Your task to perform on an android device: Open Google Image 0: 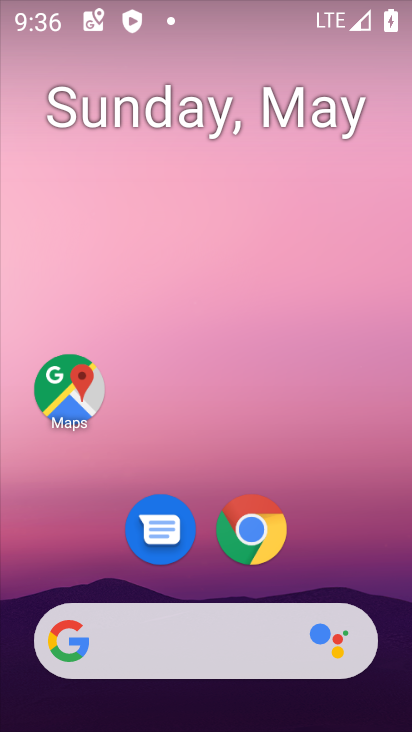
Step 0: click (239, 642)
Your task to perform on an android device: Open Google Image 1: 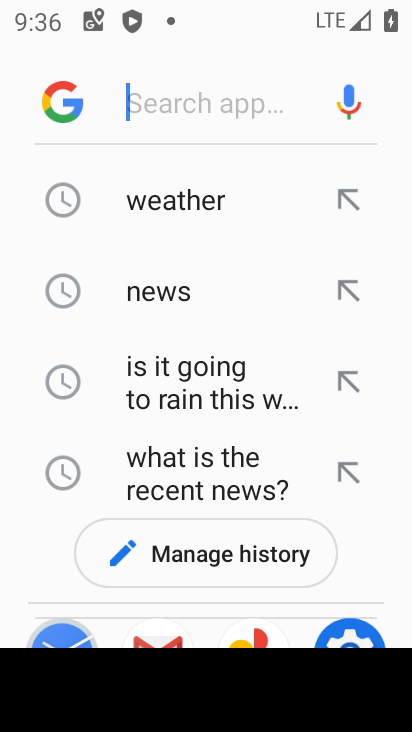
Step 1: type "google.com"
Your task to perform on an android device: Open Google Image 2: 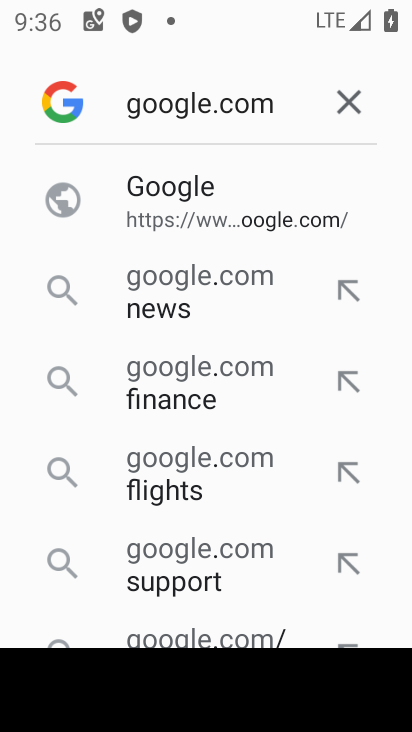
Step 2: click (288, 228)
Your task to perform on an android device: Open Google Image 3: 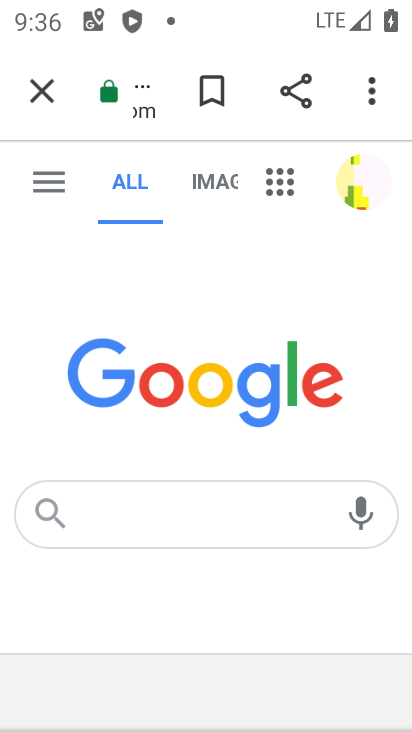
Step 3: task complete